Your task to perform on an android device: toggle wifi Image 0: 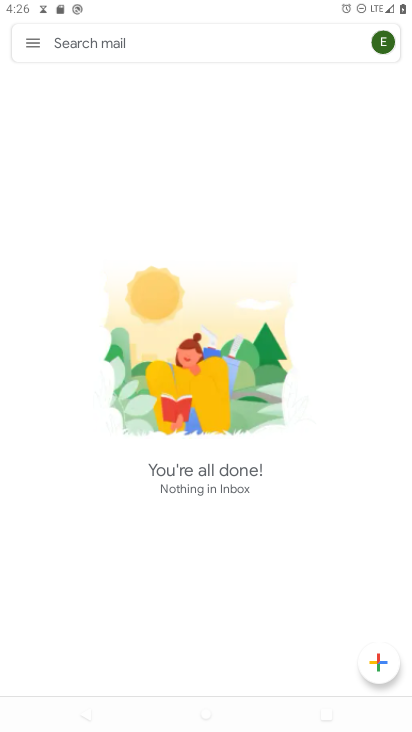
Step 0: press home button
Your task to perform on an android device: toggle wifi Image 1: 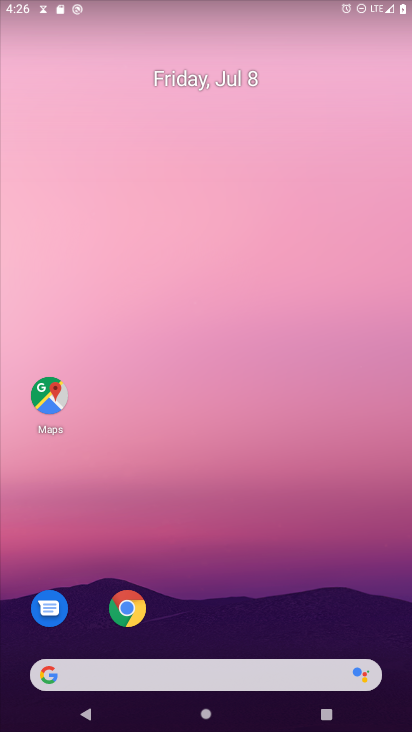
Step 1: drag from (317, 634) to (287, 4)
Your task to perform on an android device: toggle wifi Image 2: 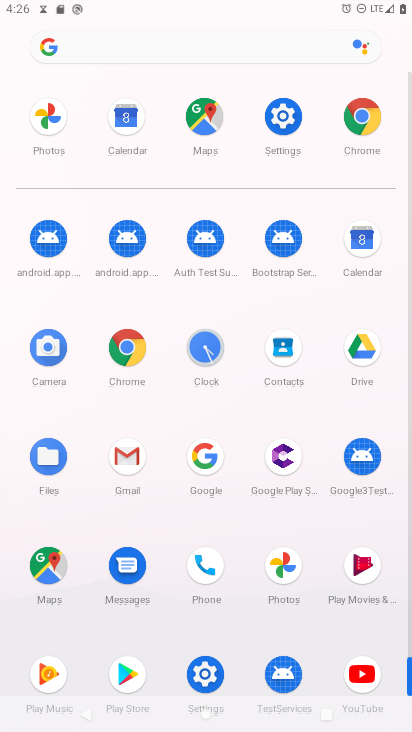
Step 2: click (298, 125)
Your task to perform on an android device: toggle wifi Image 3: 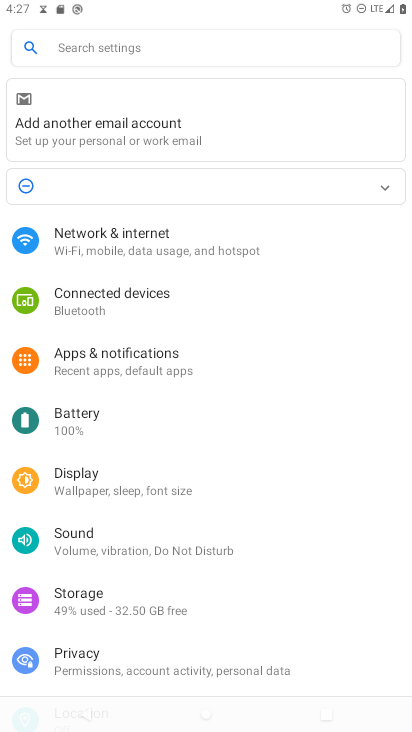
Step 3: click (127, 228)
Your task to perform on an android device: toggle wifi Image 4: 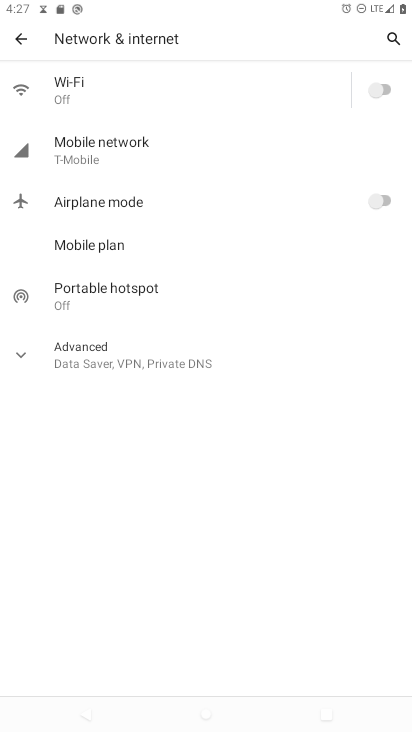
Step 4: click (391, 91)
Your task to perform on an android device: toggle wifi Image 5: 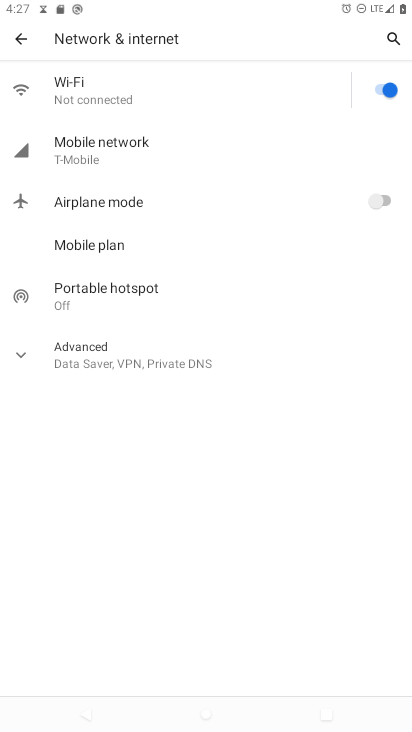
Step 5: task complete